Your task to perform on an android device: turn off smart reply in the gmail app Image 0: 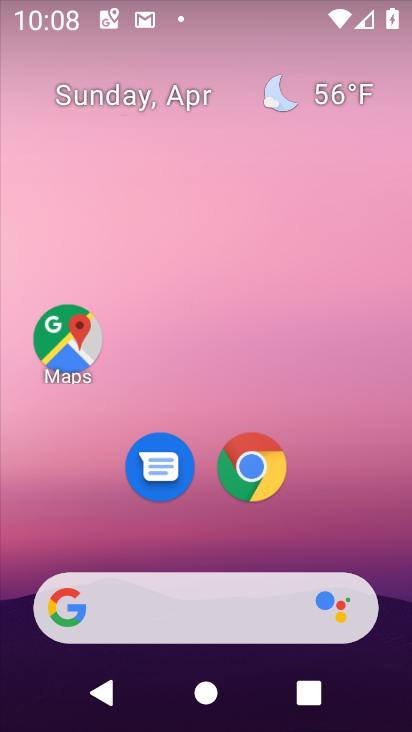
Step 0: drag from (193, 552) to (297, 40)
Your task to perform on an android device: turn off smart reply in the gmail app Image 1: 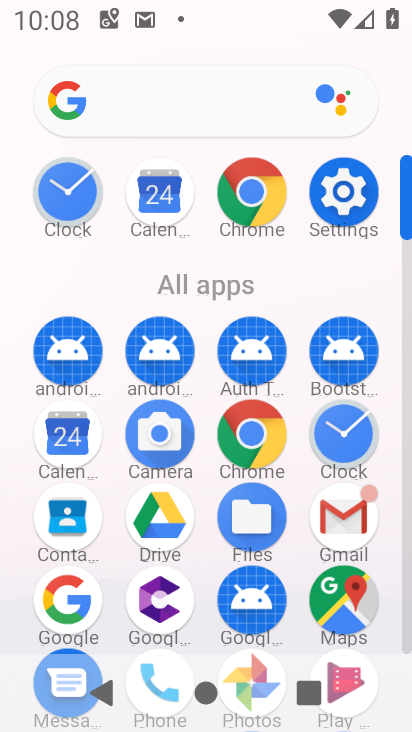
Step 1: click (372, 509)
Your task to perform on an android device: turn off smart reply in the gmail app Image 2: 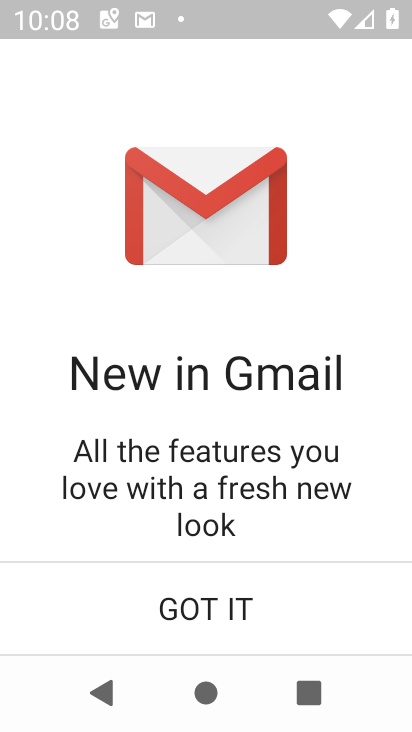
Step 2: click (243, 600)
Your task to perform on an android device: turn off smart reply in the gmail app Image 3: 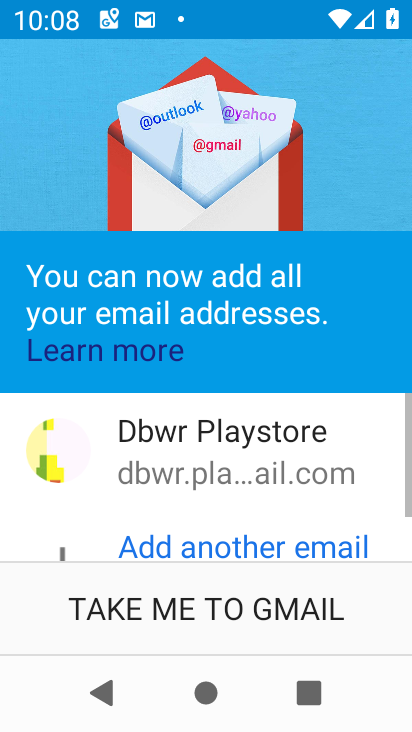
Step 3: click (243, 600)
Your task to perform on an android device: turn off smart reply in the gmail app Image 4: 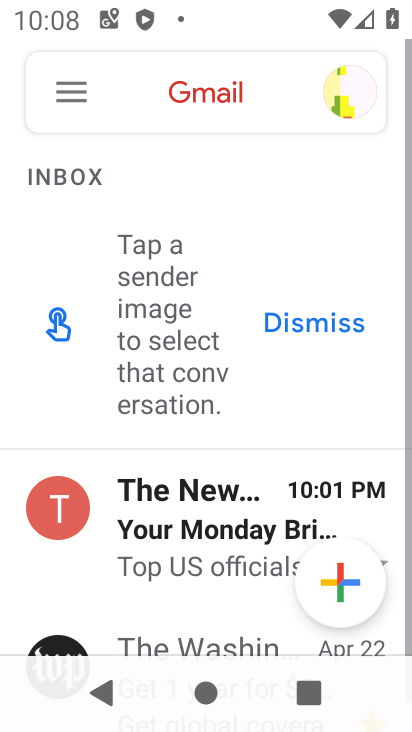
Step 4: click (65, 115)
Your task to perform on an android device: turn off smart reply in the gmail app Image 5: 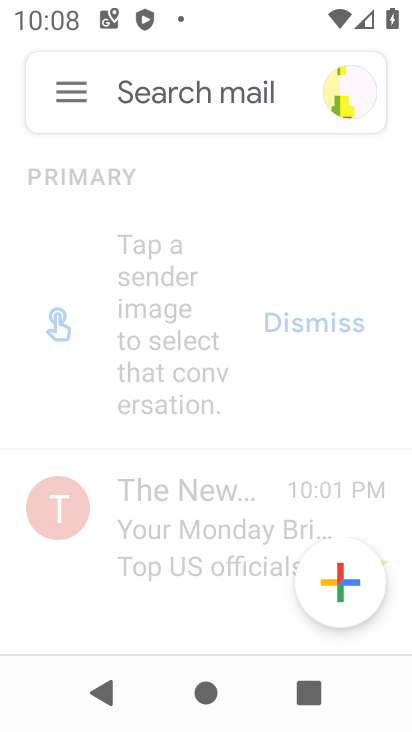
Step 5: drag from (148, 588) to (212, 266)
Your task to perform on an android device: turn off smart reply in the gmail app Image 6: 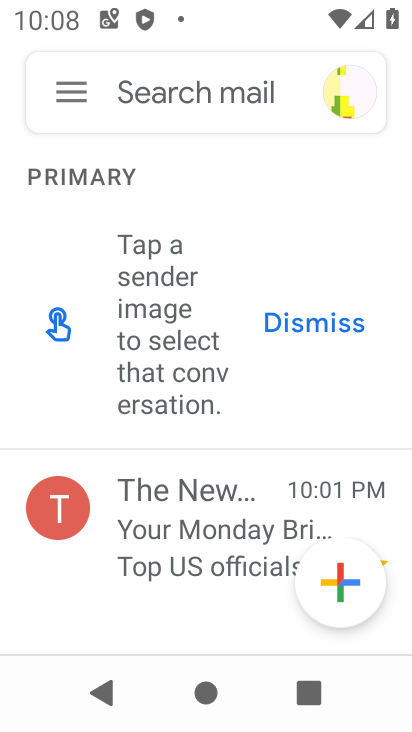
Step 6: click (97, 83)
Your task to perform on an android device: turn off smart reply in the gmail app Image 7: 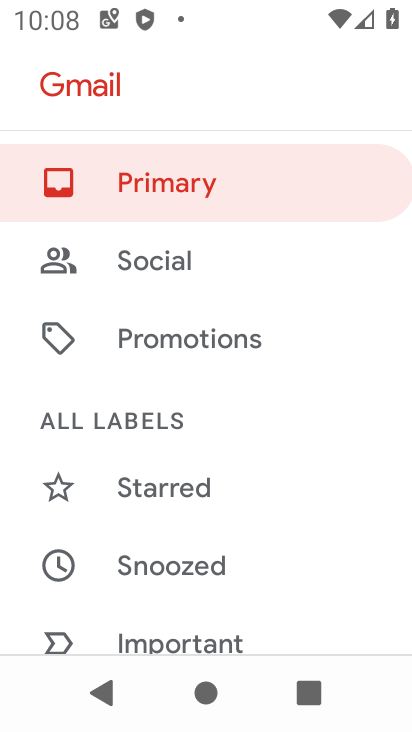
Step 7: drag from (221, 568) to (370, 55)
Your task to perform on an android device: turn off smart reply in the gmail app Image 8: 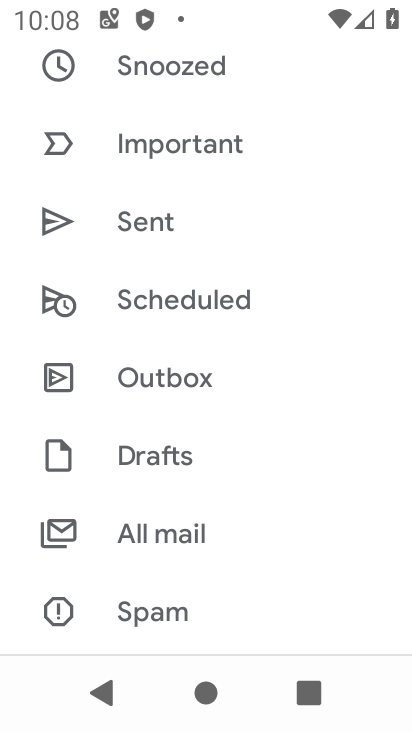
Step 8: drag from (186, 610) to (279, 212)
Your task to perform on an android device: turn off smart reply in the gmail app Image 9: 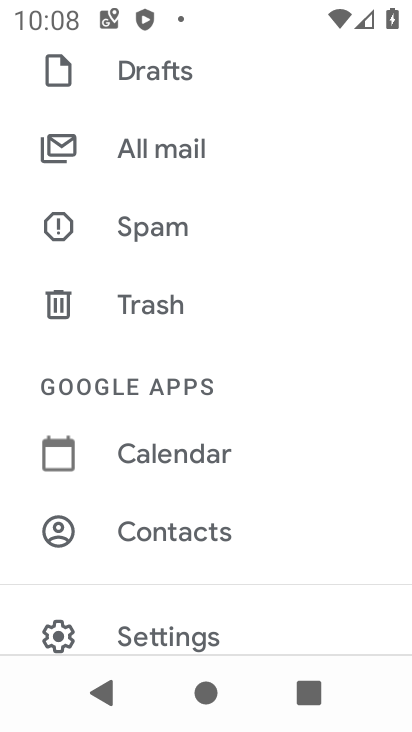
Step 9: click (171, 634)
Your task to perform on an android device: turn off smart reply in the gmail app Image 10: 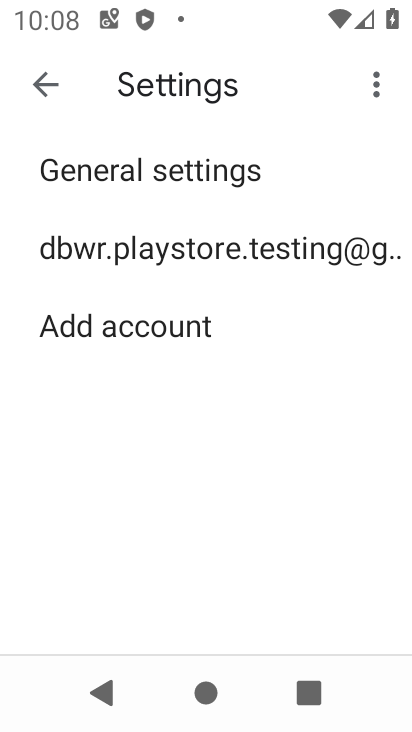
Step 10: click (233, 259)
Your task to perform on an android device: turn off smart reply in the gmail app Image 11: 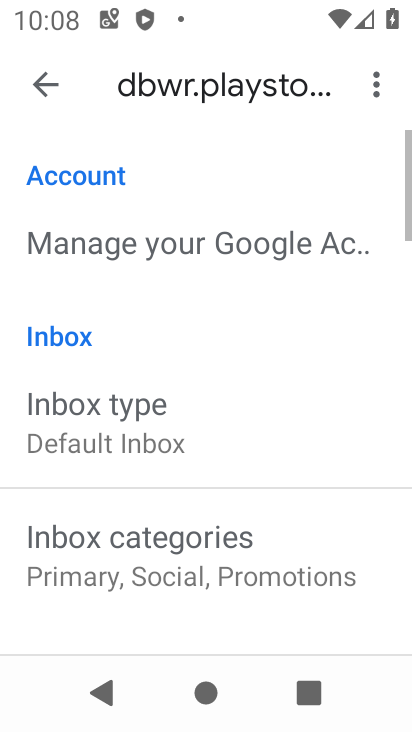
Step 11: drag from (180, 542) to (351, 60)
Your task to perform on an android device: turn off smart reply in the gmail app Image 12: 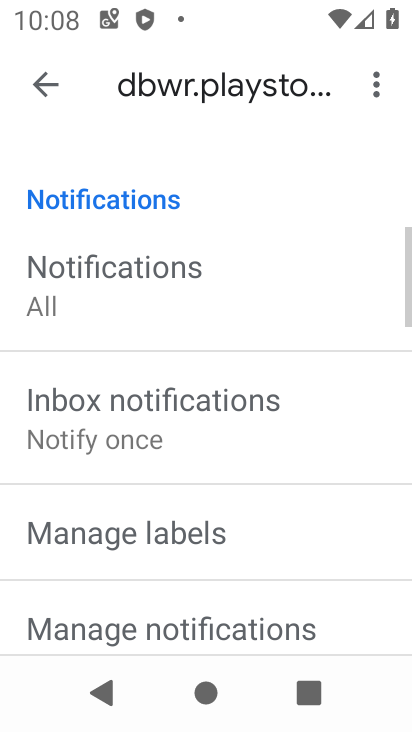
Step 12: drag from (194, 495) to (259, 294)
Your task to perform on an android device: turn off smart reply in the gmail app Image 13: 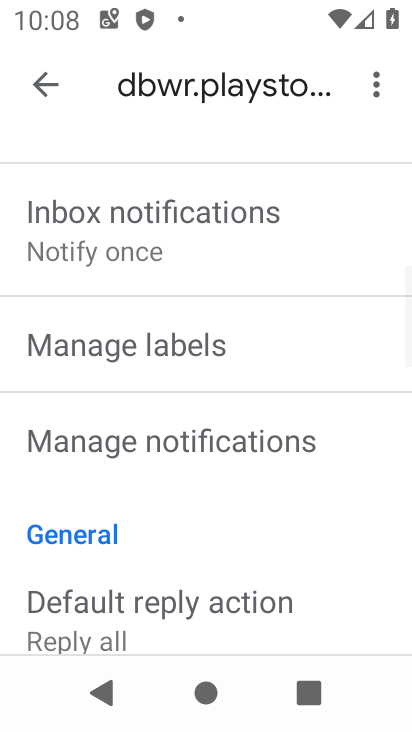
Step 13: drag from (228, 623) to (376, 160)
Your task to perform on an android device: turn off smart reply in the gmail app Image 14: 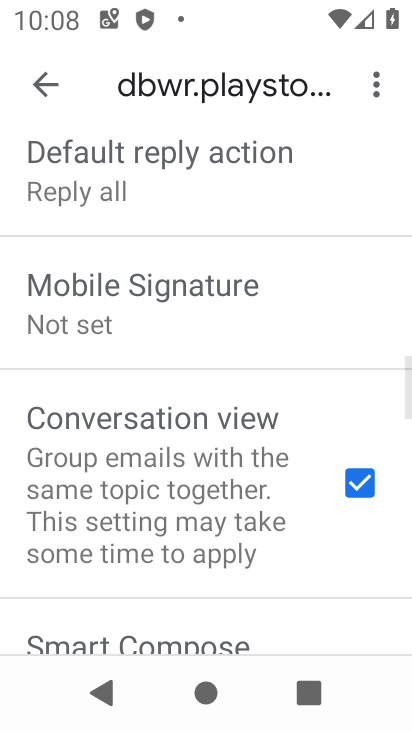
Step 14: drag from (212, 604) to (382, 122)
Your task to perform on an android device: turn off smart reply in the gmail app Image 15: 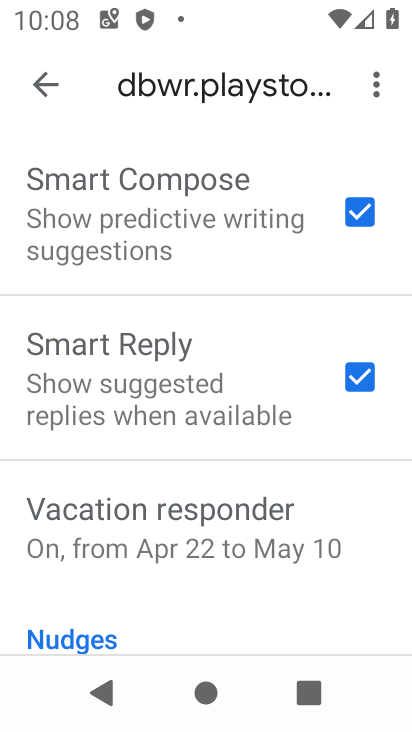
Step 15: click (354, 384)
Your task to perform on an android device: turn off smart reply in the gmail app Image 16: 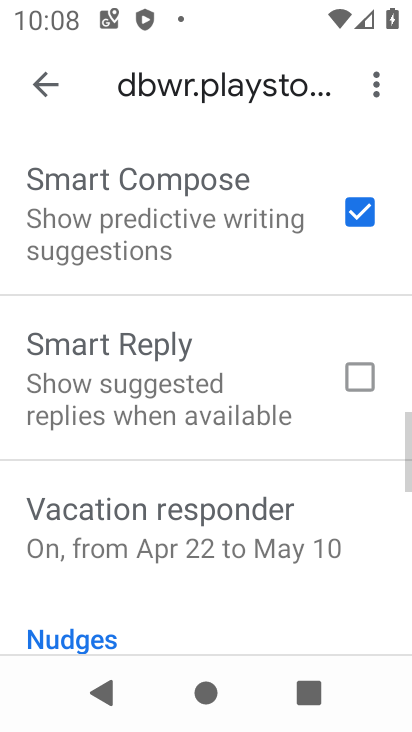
Step 16: task complete